Your task to perform on an android device: Go to internet settings Image 0: 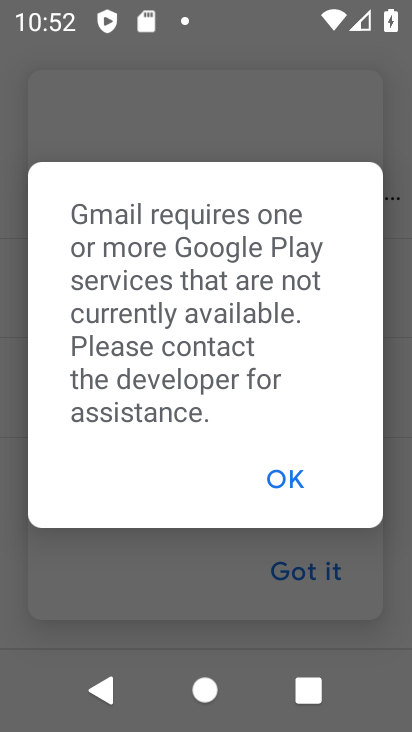
Step 0: press home button
Your task to perform on an android device: Go to internet settings Image 1: 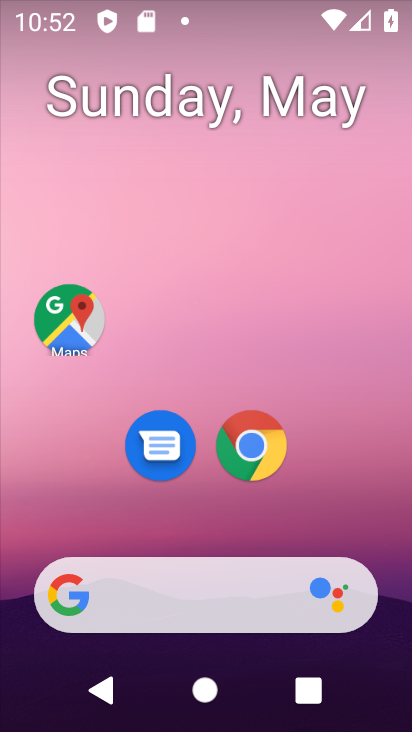
Step 1: click (220, 161)
Your task to perform on an android device: Go to internet settings Image 2: 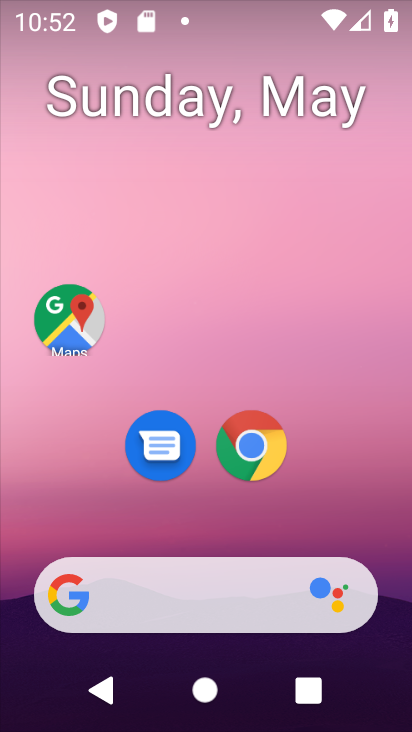
Step 2: drag from (177, 532) to (255, 152)
Your task to perform on an android device: Go to internet settings Image 3: 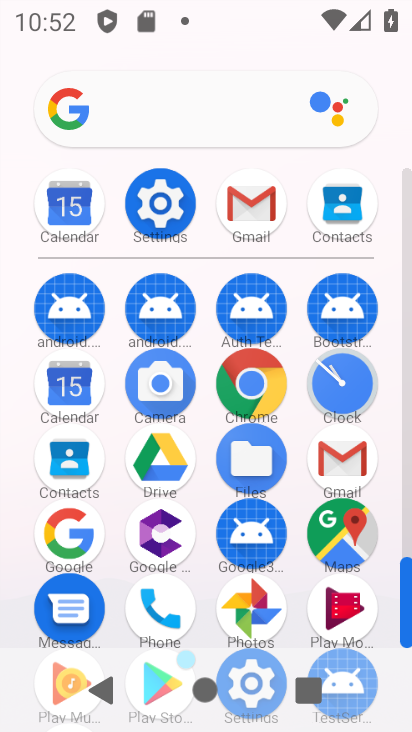
Step 3: click (171, 199)
Your task to perform on an android device: Go to internet settings Image 4: 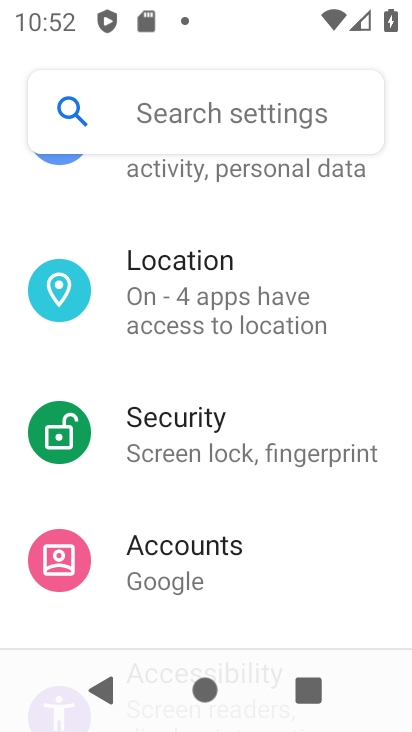
Step 4: drag from (286, 249) to (246, 563)
Your task to perform on an android device: Go to internet settings Image 5: 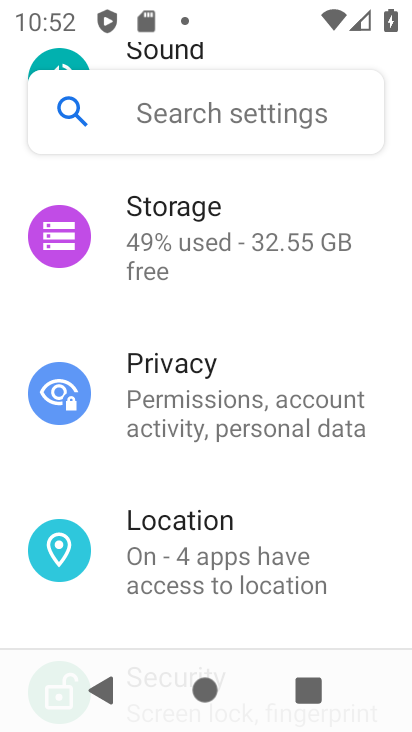
Step 5: drag from (260, 197) to (294, 528)
Your task to perform on an android device: Go to internet settings Image 6: 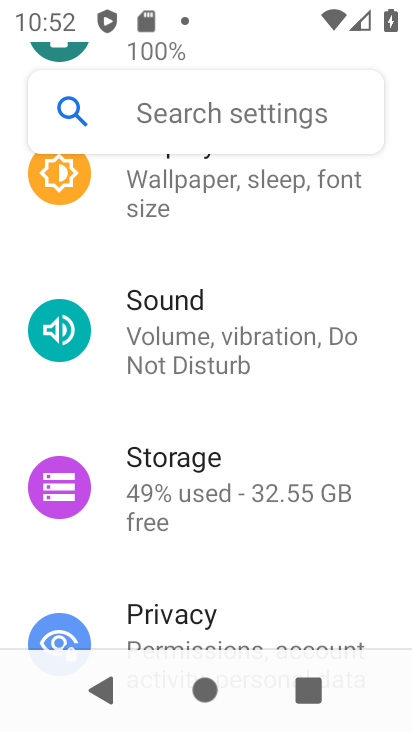
Step 6: drag from (305, 269) to (314, 522)
Your task to perform on an android device: Go to internet settings Image 7: 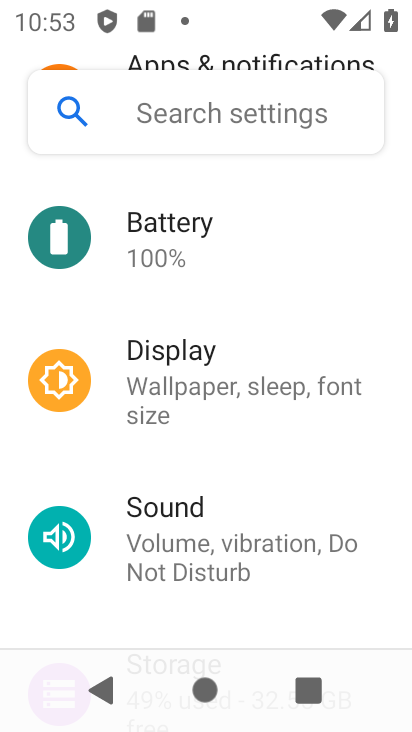
Step 7: drag from (278, 201) to (260, 498)
Your task to perform on an android device: Go to internet settings Image 8: 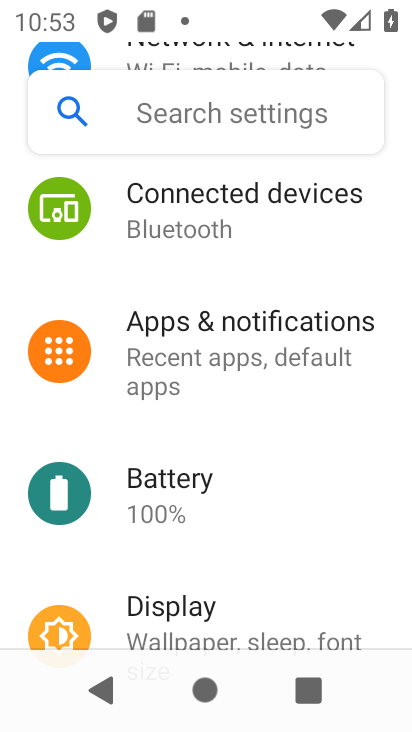
Step 8: drag from (216, 264) to (206, 592)
Your task to perform on an android device: Go to internet settings Image 9: 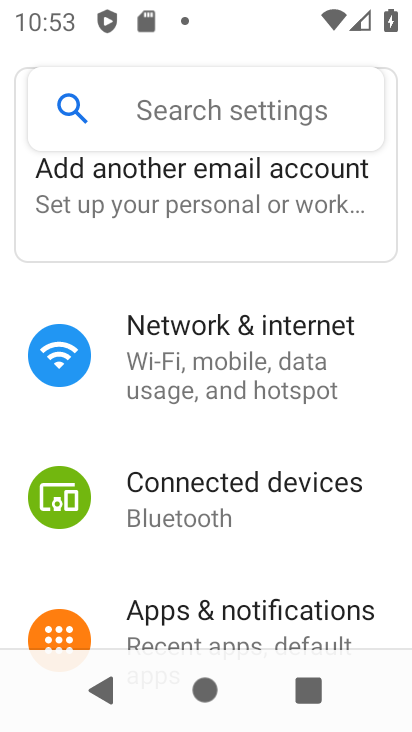
Step 9: click (229, 324)
Your task to perform on an android device: Go to internet settings Image 10: 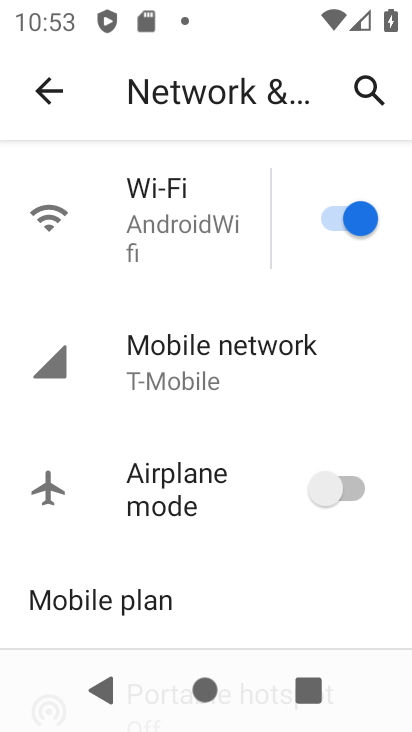
Step 10: task complete